Your task to perform on an android device: Open calendar and show me the fourth week of next month Image 0: 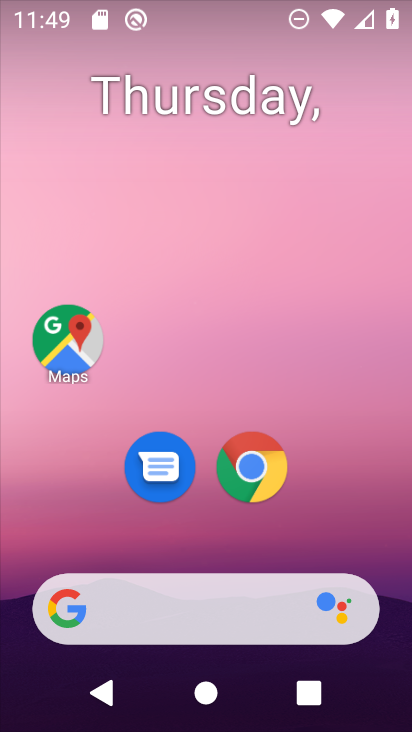
Step 0: drag from (355, 553) to (380, 16)
Your task to perform on an android device: Open calendar and show me the fourth week of next month Image 1: 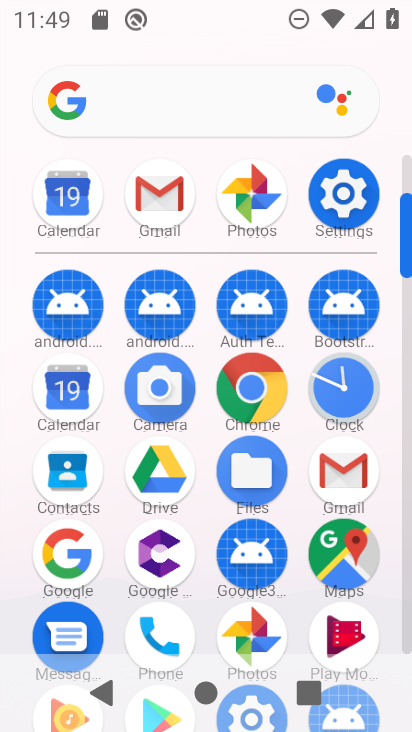
Step 1: click (56, 203)
Your task to perform on an android device: Open calendar and show me the fourth week of next month Image 2: 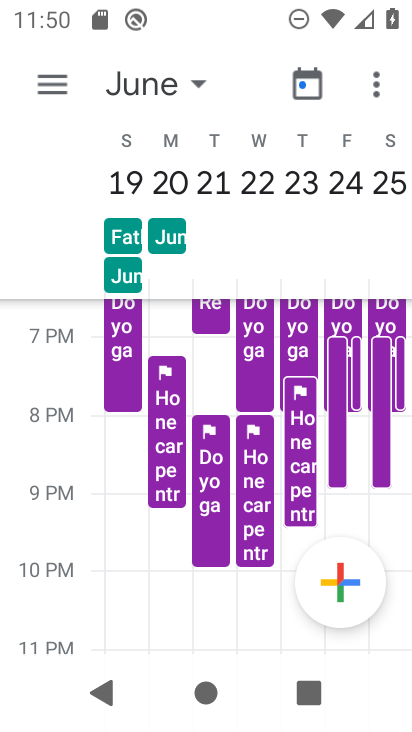
Step 2: task complete